Your task to perform on an android device: open app "Instagram" (install if not already installed) Image 0: 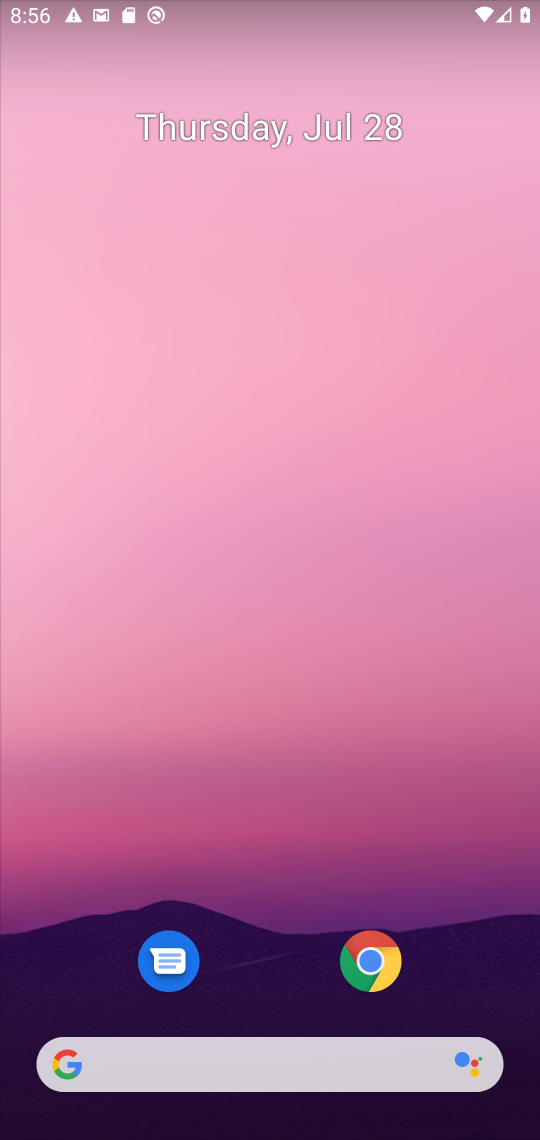
Step 0: drag from (272, 863) to (233, 117)
Your task to perform on an android device: open app "Instagram" (install if not already installed) Image 1: 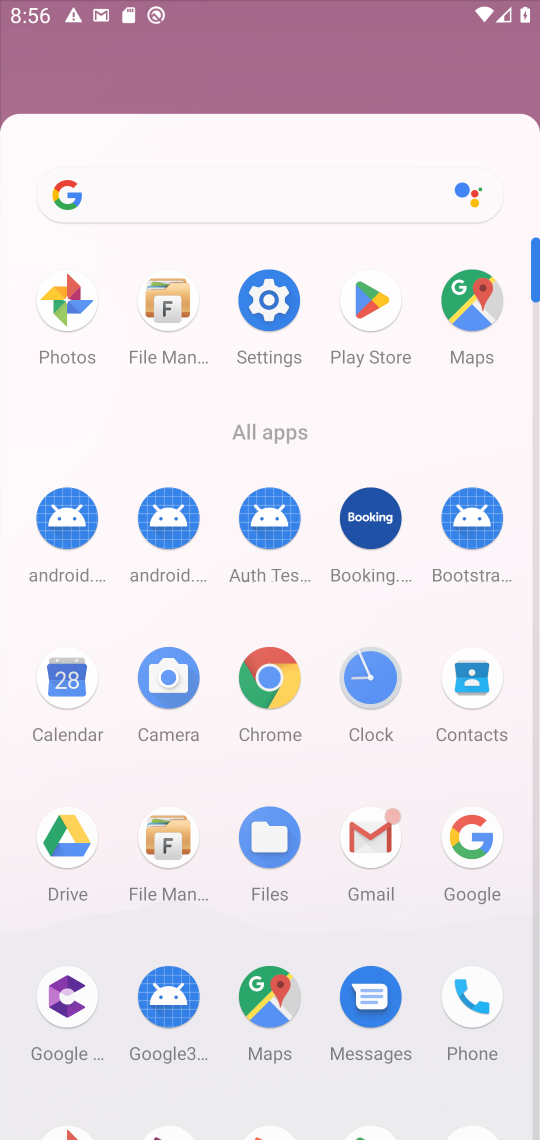
Step 1: click (196, 336)
Your task to perform on an android device: open app "Instagram" (install if not already installed) Image 2: 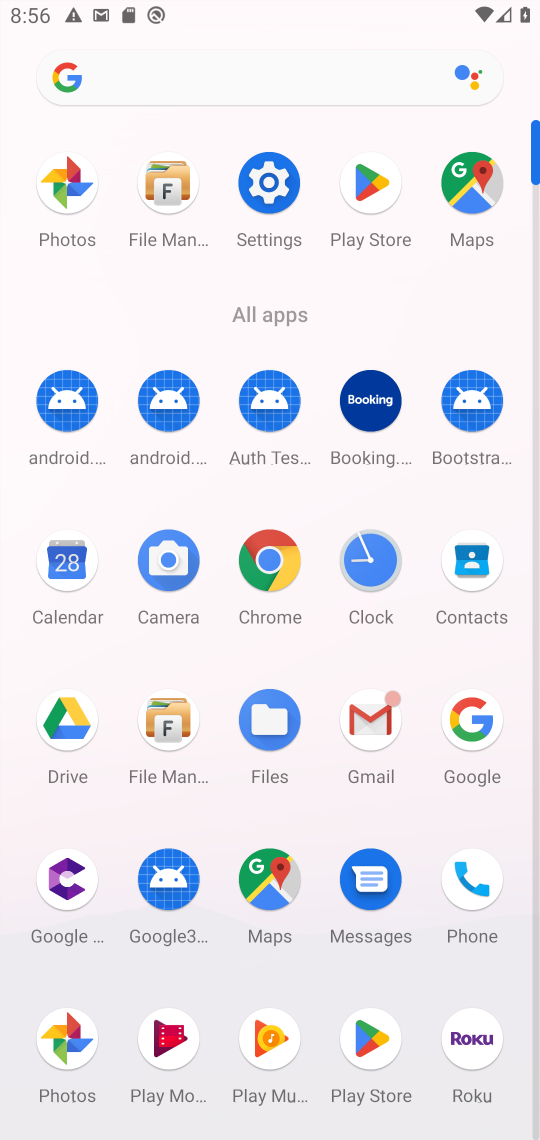
Step 2: drag from (319, 284) to (320, 3)
Your task to perform on an android device: open app "Instagram" (install if not already installed) Image 3: 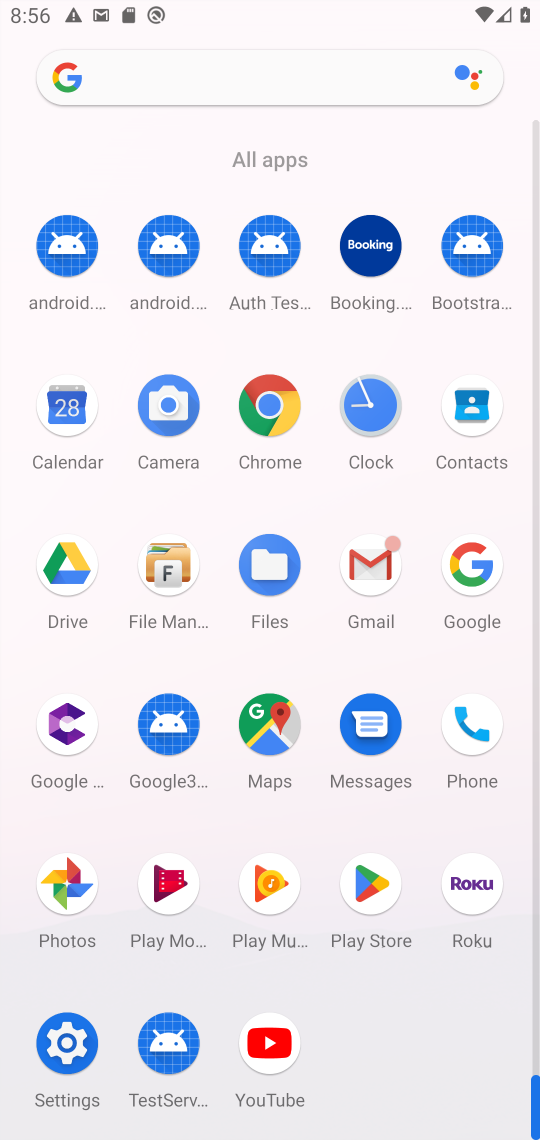
Step 3: click (373, 900)
Your task to perform on an android device: open app "Instagram" (install if not already installed) Image 4: 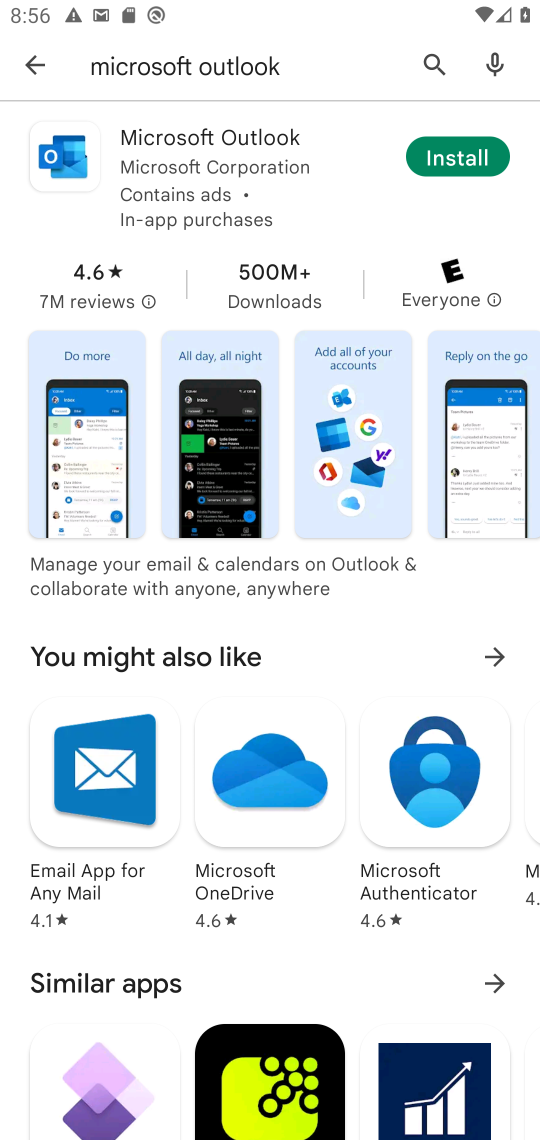
Step 4: click (428, 68)
Your task to perform on an android device: open app "Instagram" (install if not already installed) Image 5: 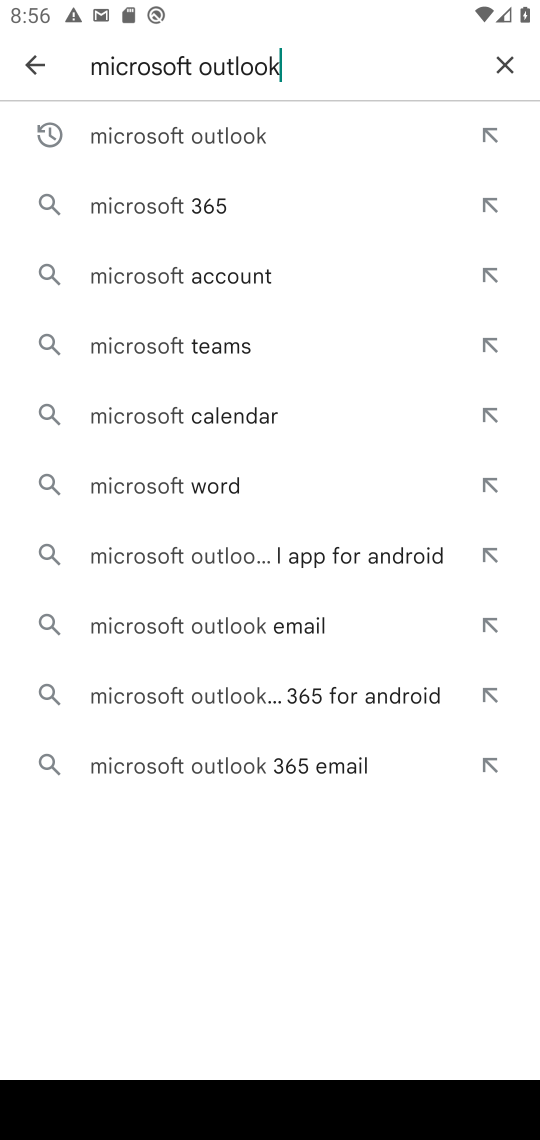
Step 5: click (506, 77)
Your task to perform on an android device: open app "Instagram" (install if not already installed) Image 6: 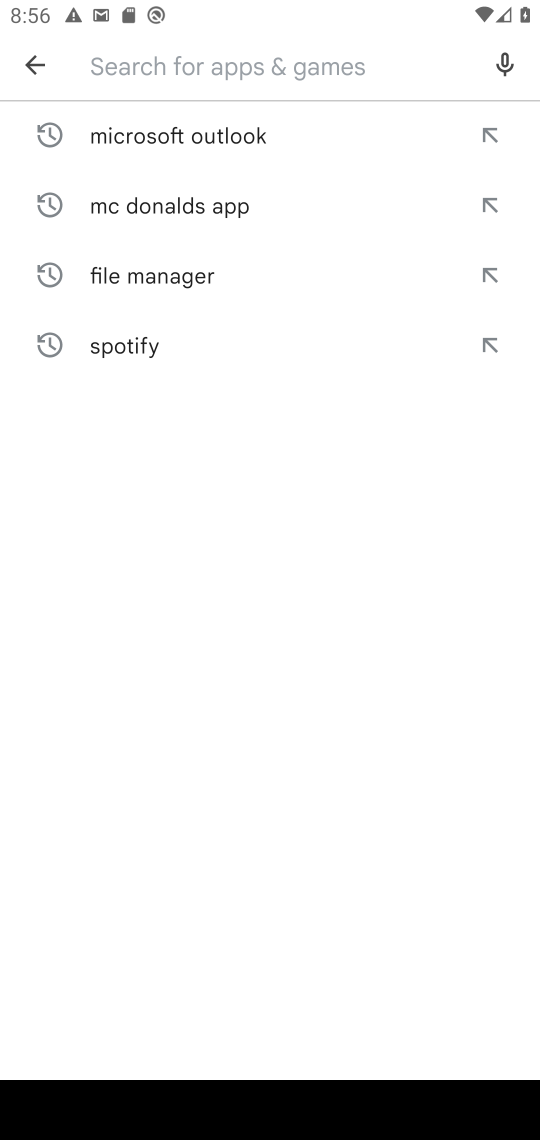
Step 6: type "instagram"
Your task to perform on an android device: open app "Instagram" (install if not already installed) Image 7: 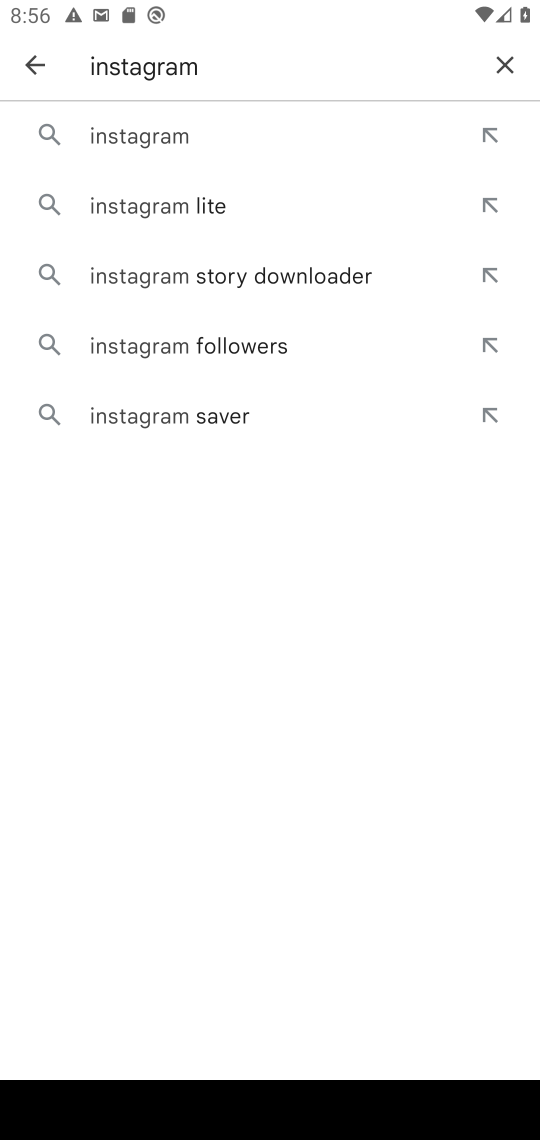
Step 7: click (226, 137)
Your task to perform on an android device: open app "Instagram" (install if not already installed) Image 8: 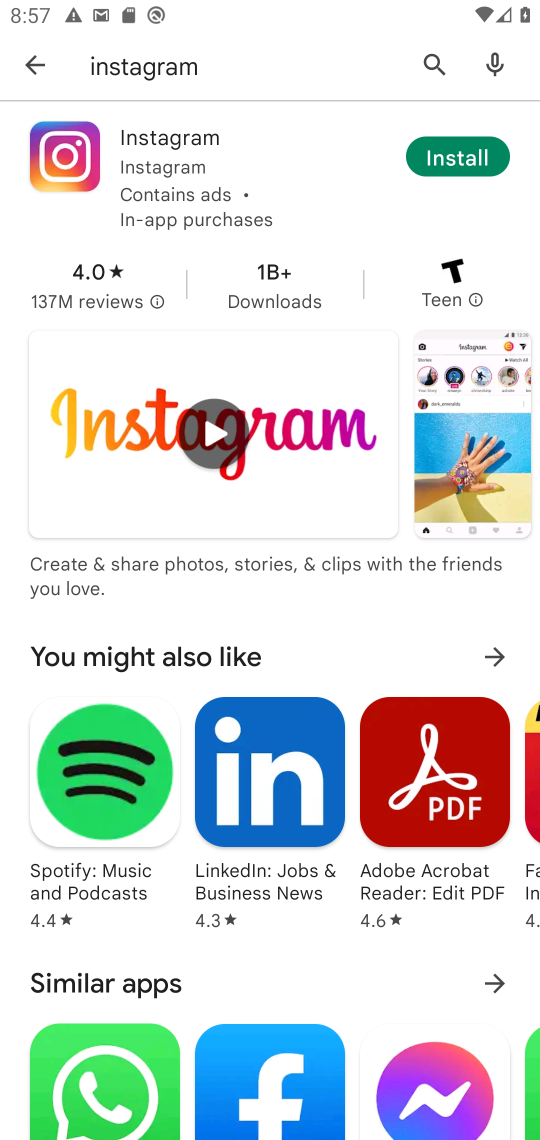
Step 8: click (464, 162)
Your task to perform on an android device: open app "Instagram" (install if not already installed) Image 9: 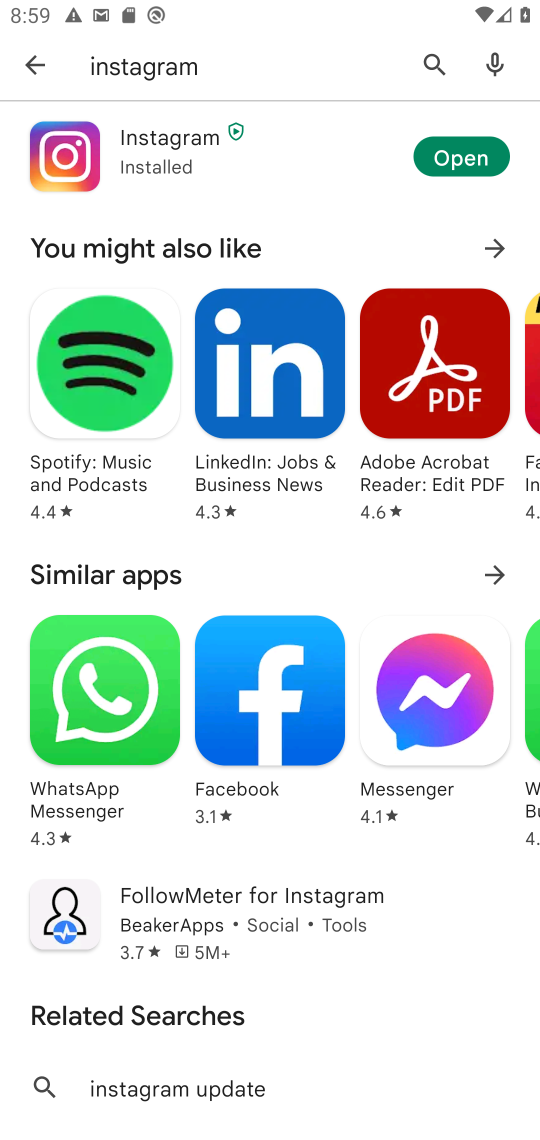
Step 9: click (436, 162)
Your task to perform on an android device: open app "Instagram" (install if not already installed) Image 10: 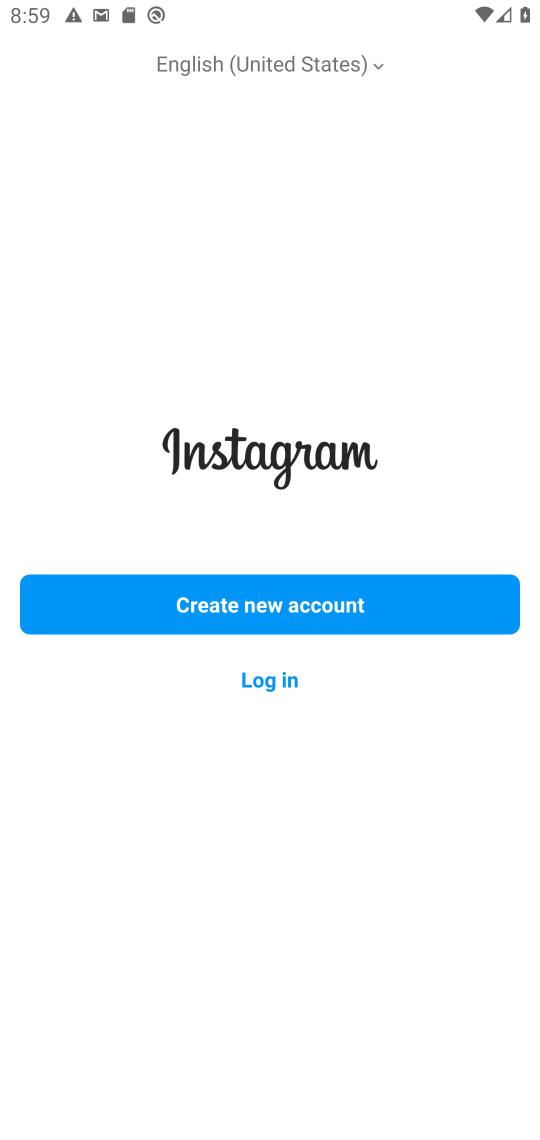
Step 10: task complete